Your task to perform on an android device: What is the news today? Image 0: 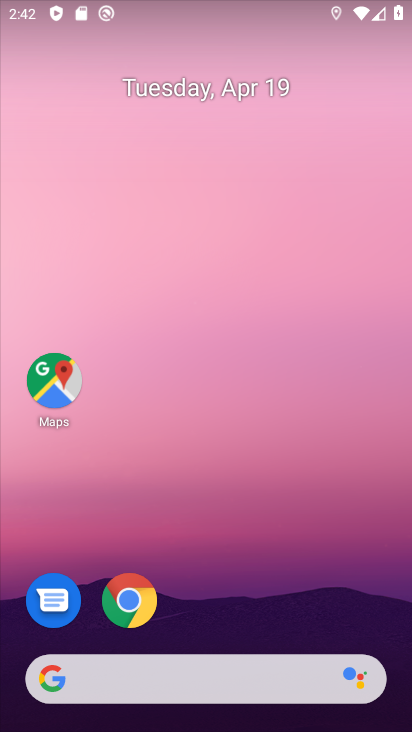
Step 0: drag from (301, 242) to (263, 88)
Your task to perform on an android device: What is the news today? Image 1: 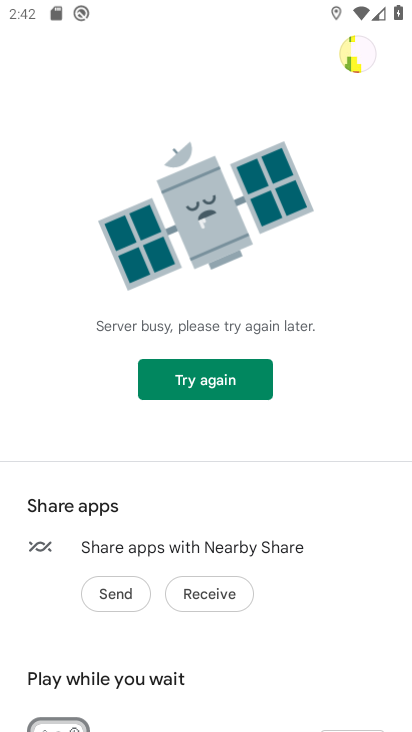
Step 1: press home button
Your task to perform on an android device: What is the news today? Image 2: 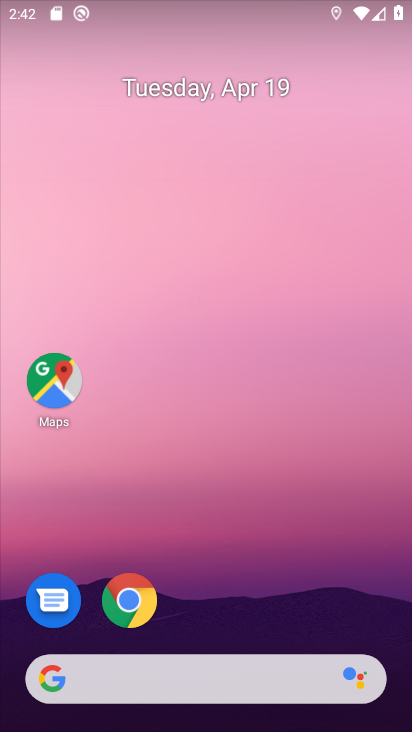
Step 2: drag from (338, 592) to (240, 188)
Your task to perform on an android device: What is the news today? Image 3: 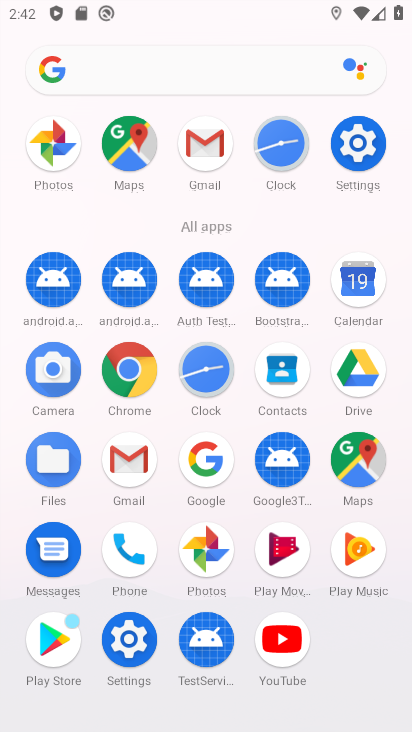
Step 3: click (127, 373)
Your task to perform on an android device: What is the news today? Image 4: 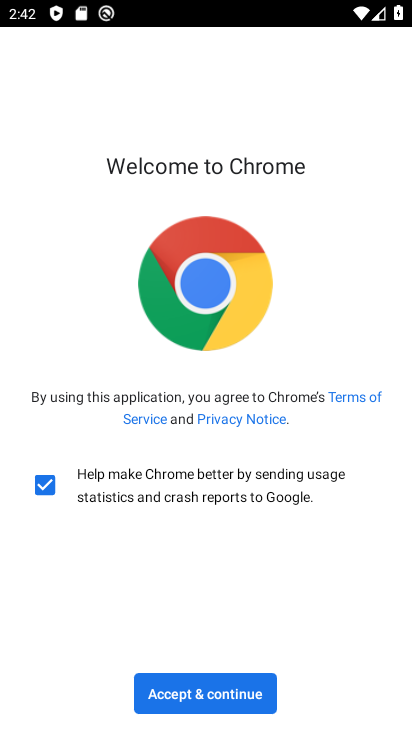
Step 4: click (233, 692)
Your task to perform on an android device: What is the news today? Image 5: 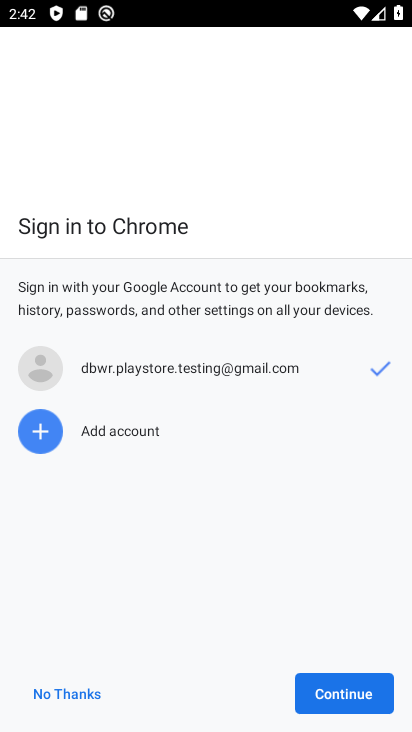
Step 5: click (312, 687)
Your task to perform on an android device: What is the news today? Image 6: 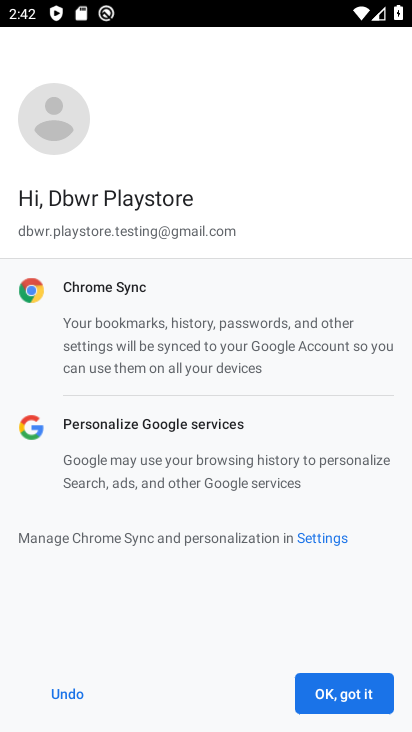
Step 6: click (312, 687)
Your task to perform on an android device: What is the news today? Image 7: 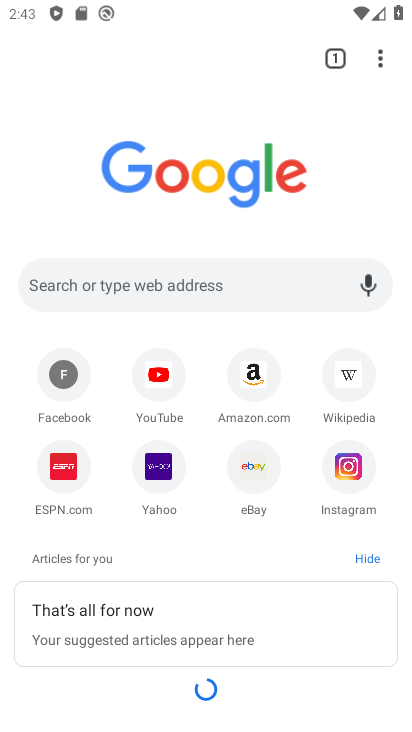
Step 7: click (211, 285)
Your task to perform on an android device: What is the news today? Image 8: 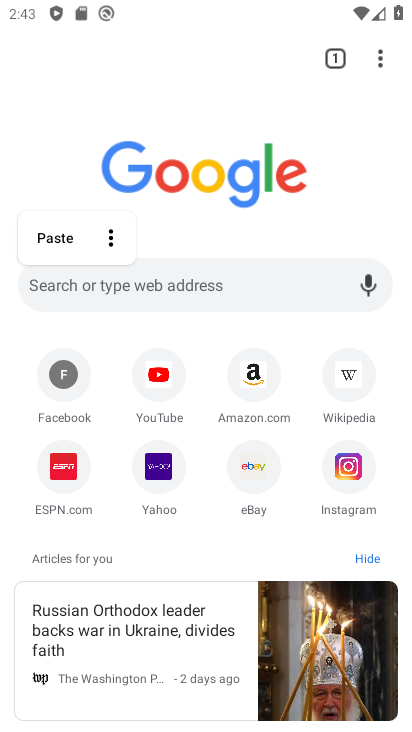
Step 8: click (211, 284)
Your task to perform on an android device: What is the news today? Image 9: 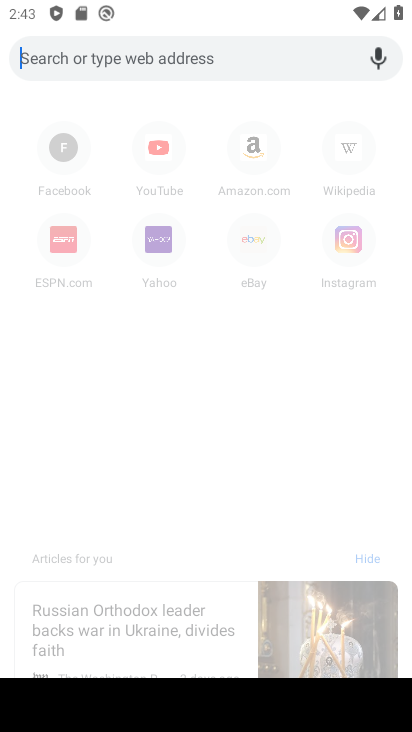
Step 9: type "What is the news today?"
Your task to perform on an android device: What is the news today? Image 10: 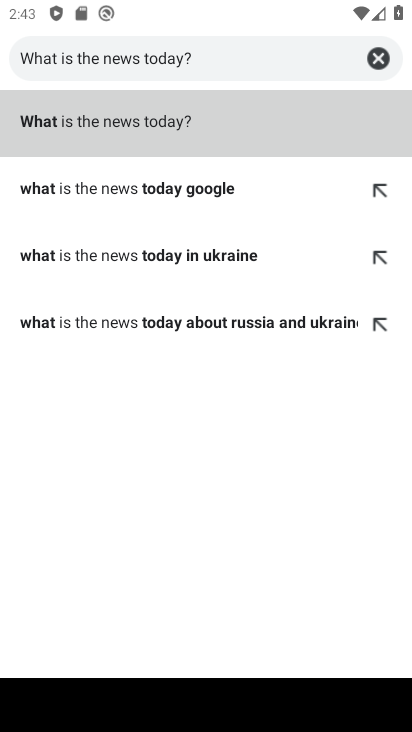
Step 10: click (188, 138)
Your task to perform on an android device: What is the news today? Image 11: 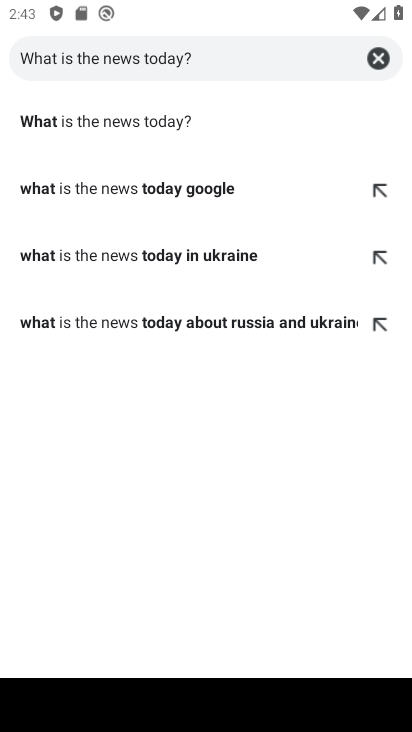
Step 11: click (180, 129)
Your task to perform on an android device: What is the news today? Image 12: 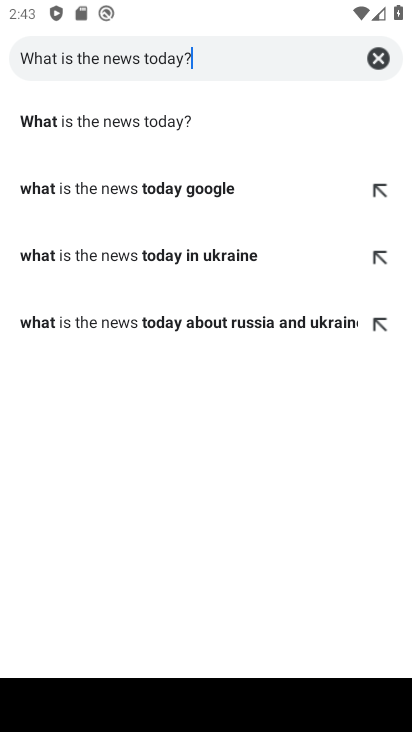
Step 12: click (175, 129)
Your task to perform on an android device: What is the news today? Image 13: 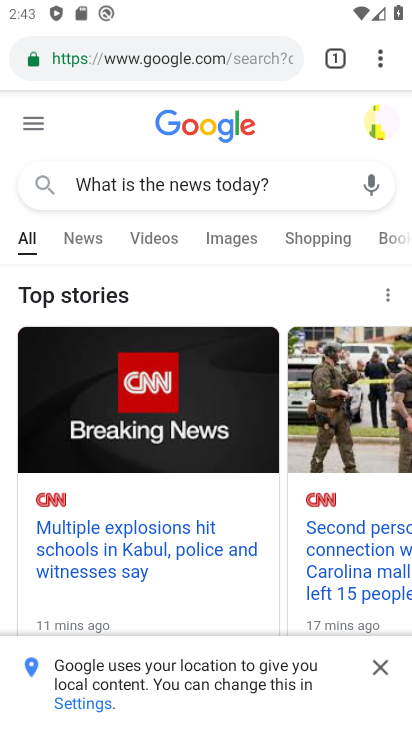
Step 13: click (383, 669)
Your task to perform on an android device: What is the news today? Image 14: 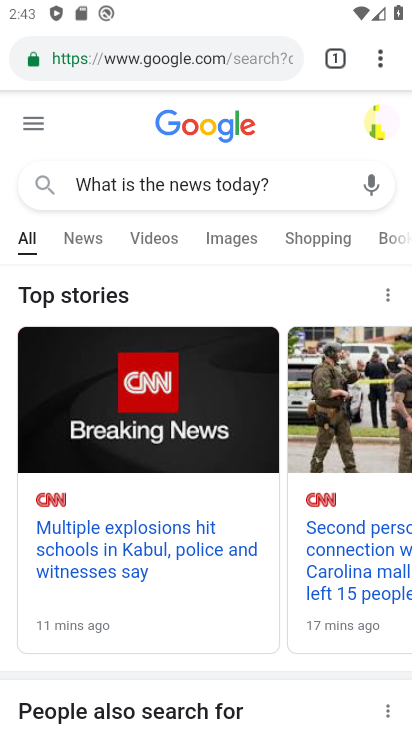
Step 14: task complete